Your task to perform on an android device: Open Youtube and go to "Your channel" Image 0: 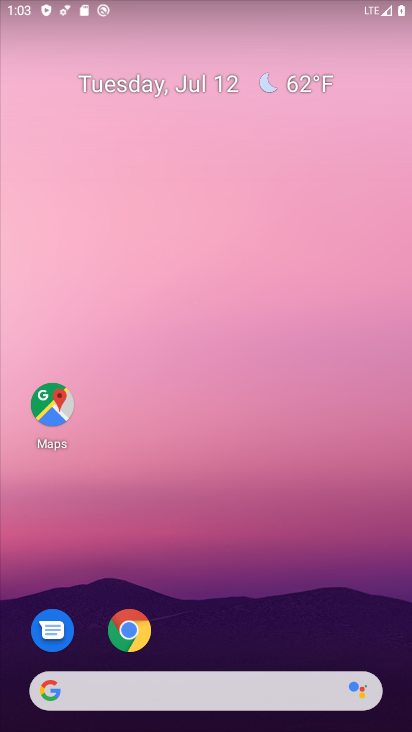
Step 0: drag from (234, 644) to (254, 145)
Your task to perform on an android device: Open Youtube and go to "Your channel" Image 1: 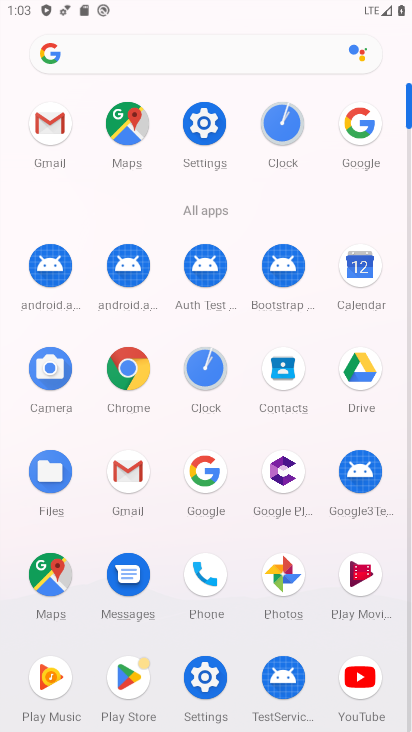
Step 1: click (363, 676)
Your task to perform on an android device: Open Youtube and go to "Your channel" Image 2: 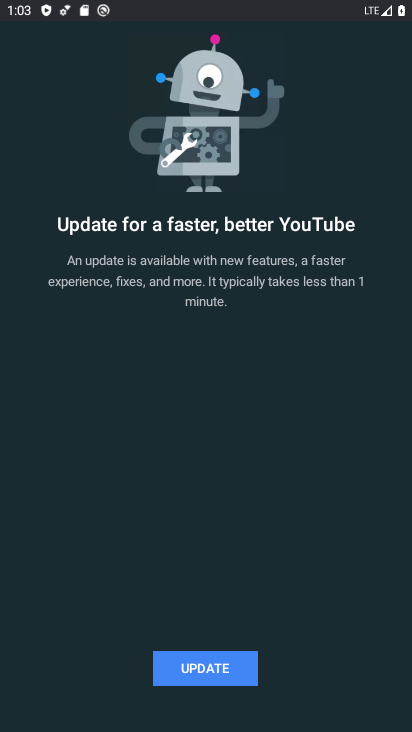
Step 2: click (211, 666)
Your task to perform on an android device: Open Youtube and go to "Your channel" Image 3: 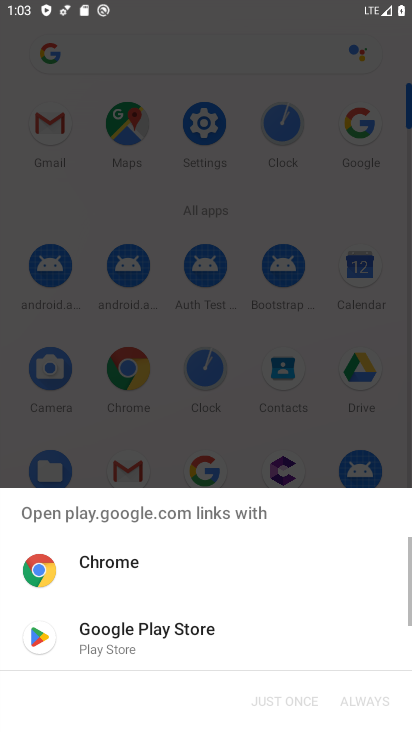
Step 3: click (124, 645)
Your task to perform on an android device: Open Youtube and go to "Your channel" Image 4: 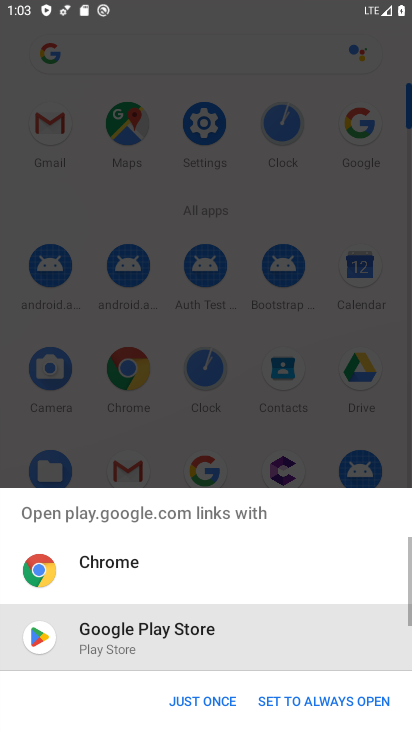
Step 4: click (199, 703)
Your task to perform on an android device: Open Youtube and go to "Your channel" Image 5: 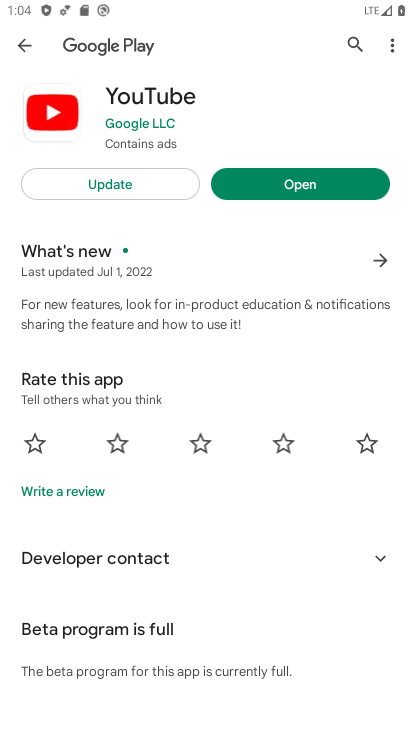
Step 5: click (145, 180)
Your task to perform on an android device: Open Youtube and go to "Your channel" Image 6: 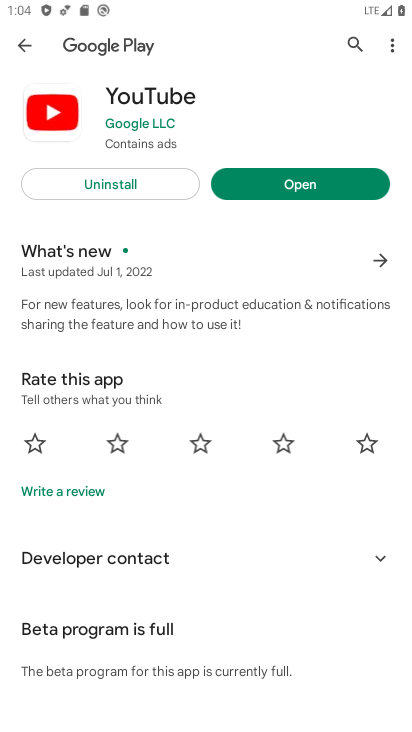
Step 6: click (308, 189)
Your task to perform on an android device: Open Youtube and go to "Your channel" Image 7: 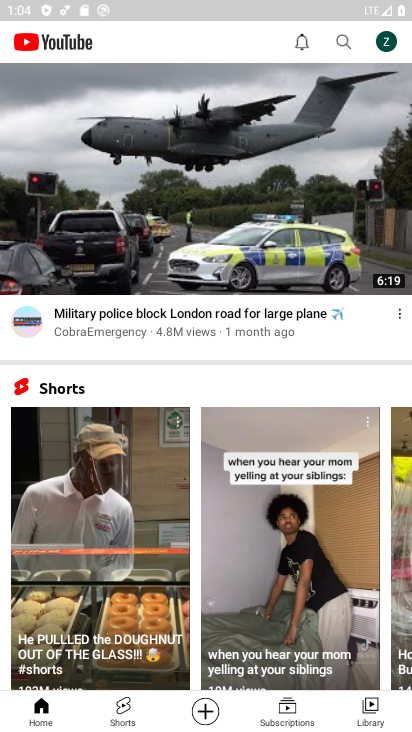
Step 7: click (387, 43)
Your task to perform on an android device: Open Youtube and go to "Your channel" Image 8: 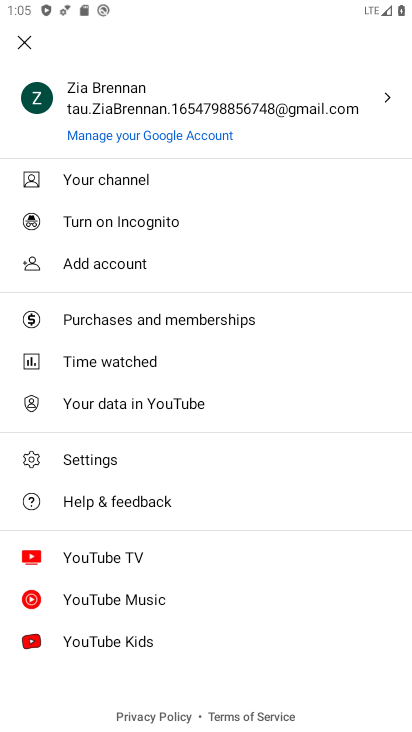
Step 8: click (88, 189)
Your task to perform on an android device: Open Youtube and go to "Your channel" Image 9: 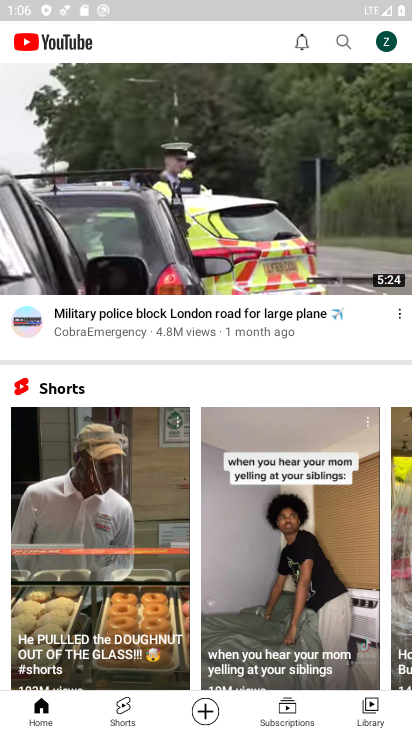
Step 9: click (383, 39)
Your task to perform on an android device: Open Youtube and go to "Your channel" Image 10: 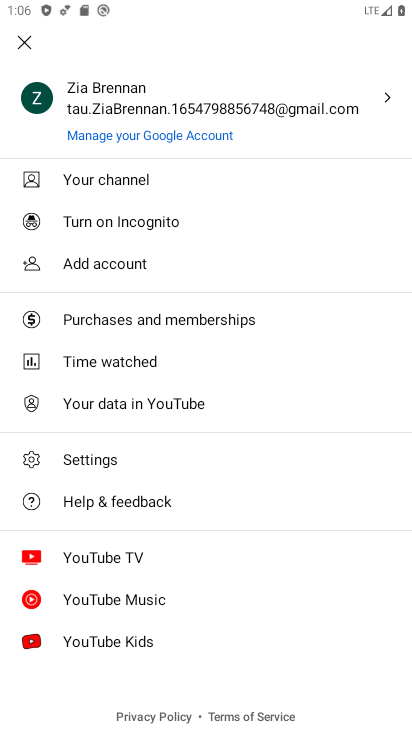
Step 10: click (140, 174)
Your task to perform on an android device: Open Youtube and go to "Your channel" Image 11: 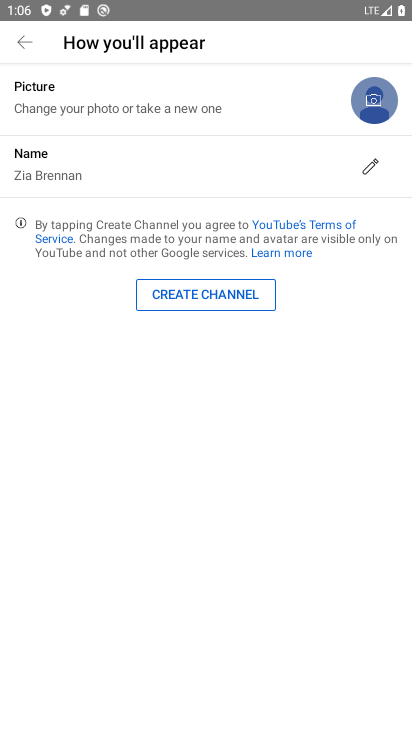
Step 11: task complete